Your task to perform on an android device: Open network settings Image 0: 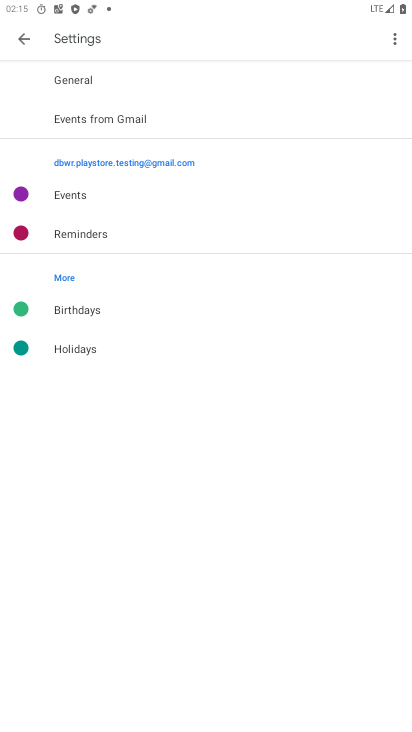
Step 0: press home button
Your task to perform on an android device: Open network settings Image 1: 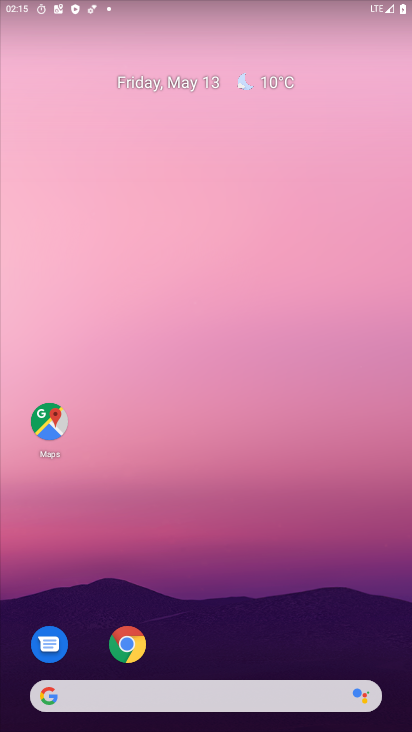
Step 1: drag from (169, 695) to (337, 14)
Your task to perform on an android device: Open network settings Image 2: 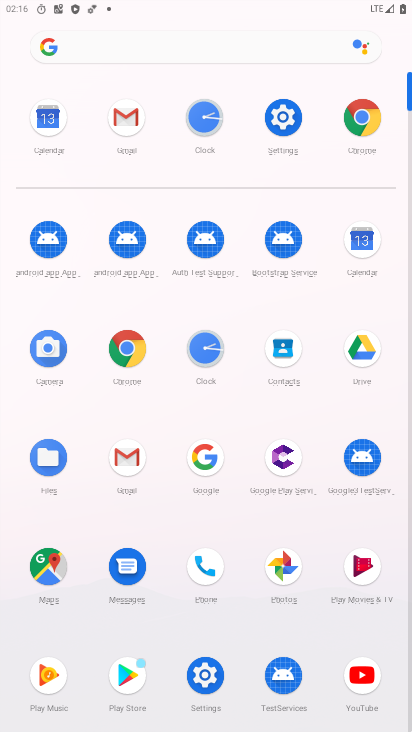
Step 2: click (282, 130)
Your task to perform on an android device: Open network settings Image 3: 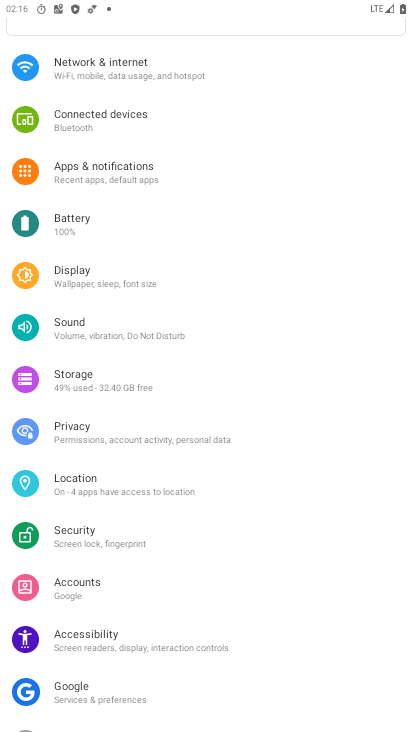
Step 3: click (126, 71)
Your task to perform on an android device: Open network settings Image 4: 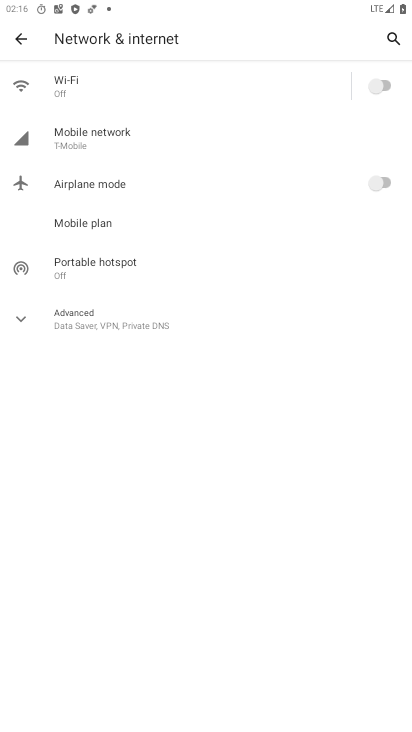
Step 4: click (119, 134)
Your task to perform on an android device: Open network settings Image 5: 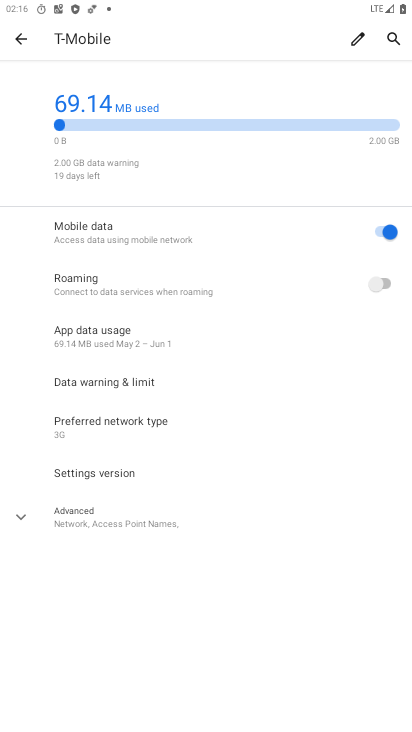
Step 5: task complete